Your task to perform on an android device: What's on my calendar today? Image 0: 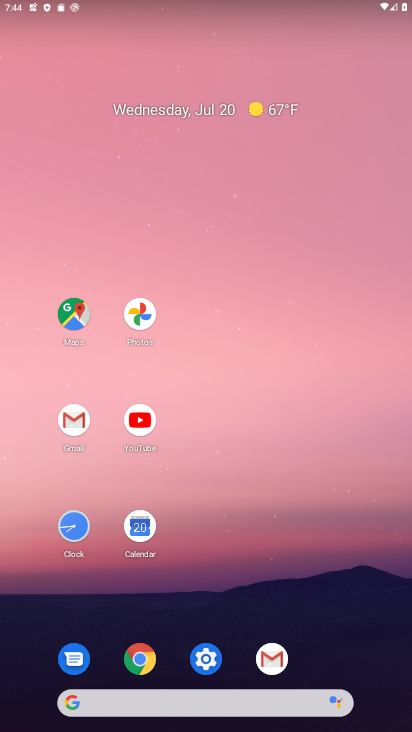
Step 0: click (143, 529)
Your task to perform on an android device: What's on my calendar today? Image 1: 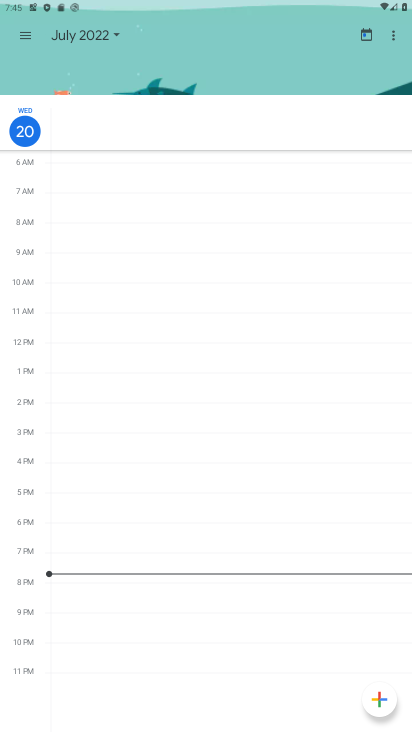
Step 1: task complete